Your task to perform on an android device: change the clock style Image 0: 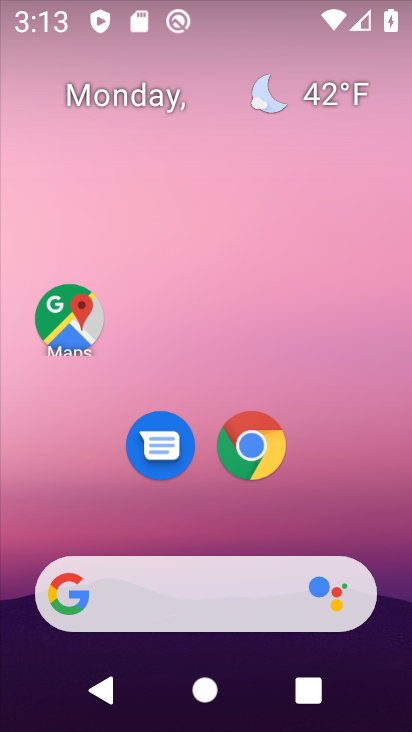
Step 0: drag from (12, 518) to (227, 34)
Your task to perform on an android device: change the clock style Image 1: 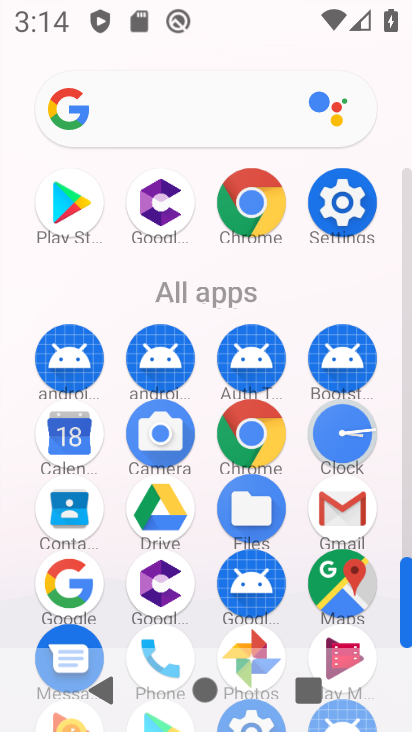
Step 1: click (341, 440)
Your task to perform on an android device: change the clock style Image 2: 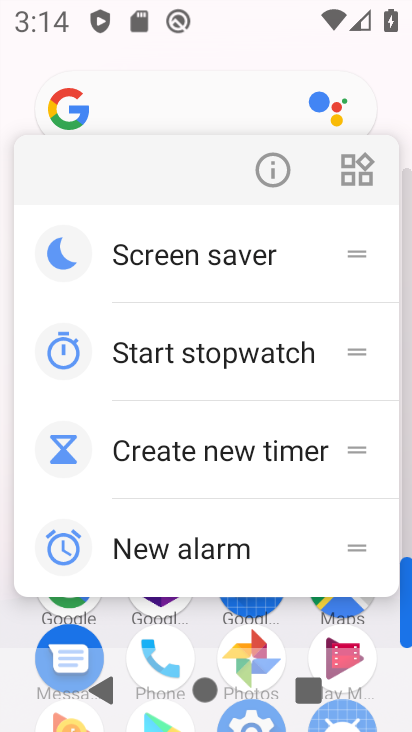
Step 2: click (247, 90)
Your task to perform on an android device: change the clock style Image 3: 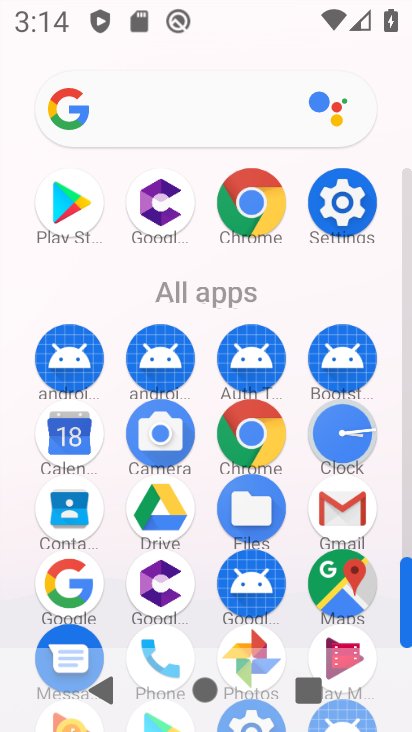
Step 3: click (339, 425)
Your task to perform on an android device: change the clock style Image 4: 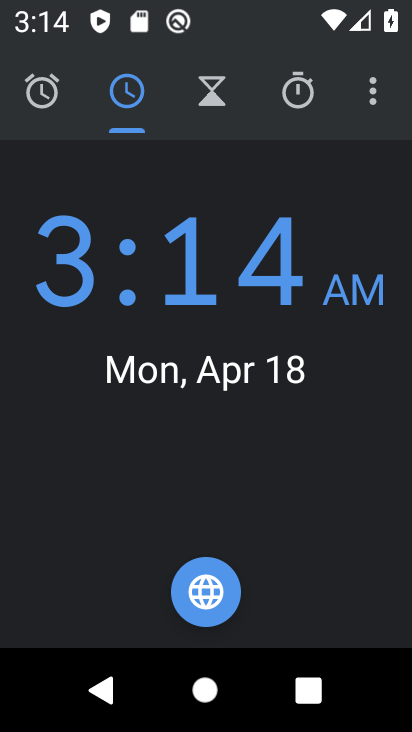
Step 4: click (374, 88)
Your task to perform on an android device: change the clock style Image 5: 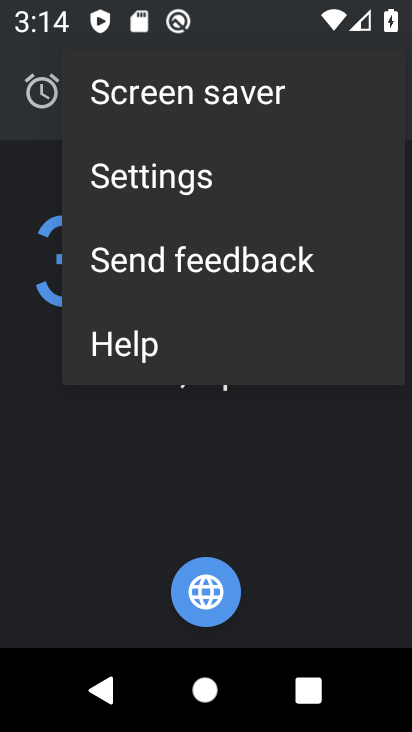
Step 5: click (253, 196)
Your task to perform on an android device: change the clock style Image 6: 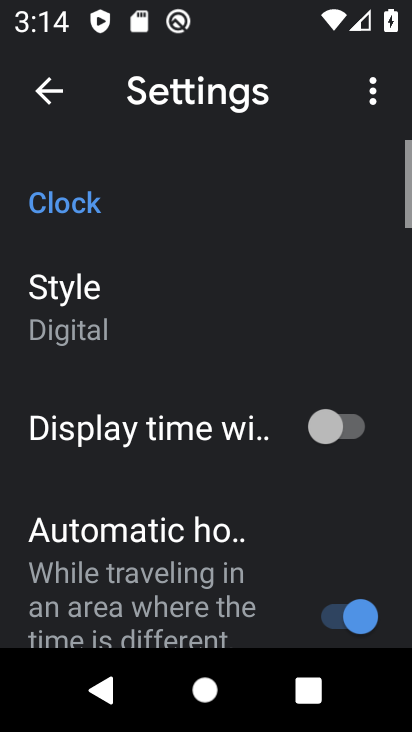
Step 6: click (166, 323)
Your task to perform on an android device: change the clock style Image 7: 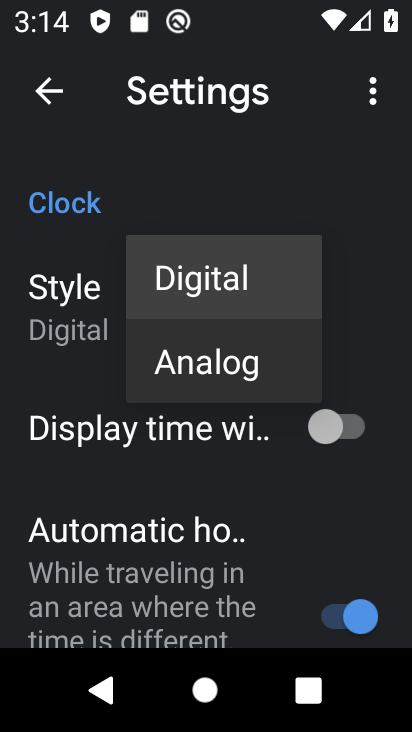
Step 7: click (219, 369)
Your task to perform on an android device: change the clock style Image 8: 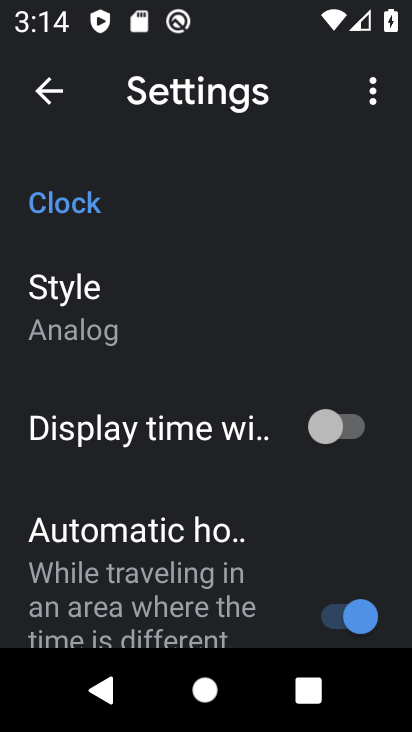
Step 8: task complete